Your task to perform on an android device: Is it going to rain today? Image 0: 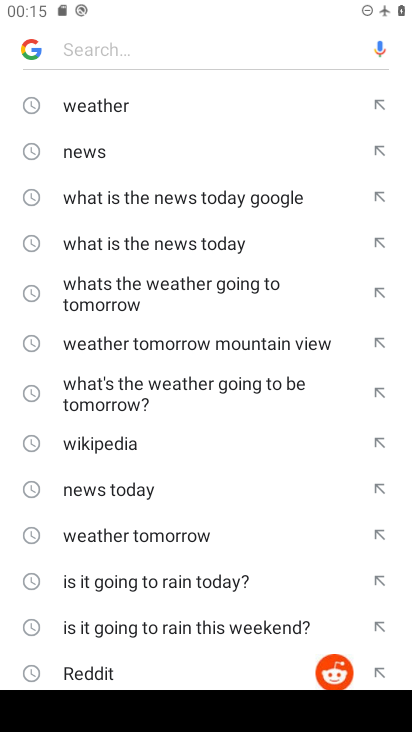
Step 0: click (93, 102)
Your task to perform on an android device: Is it going to rain today? Image 1: 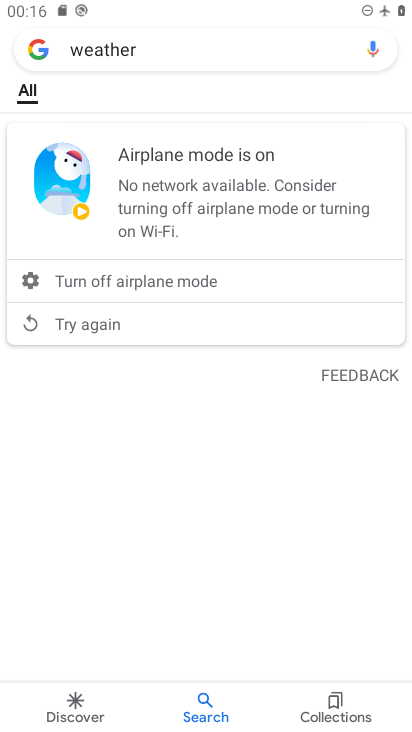
Step 1: task complete